Your task to perform on an android device: Open the calendar and show me this week's events? Image 0: 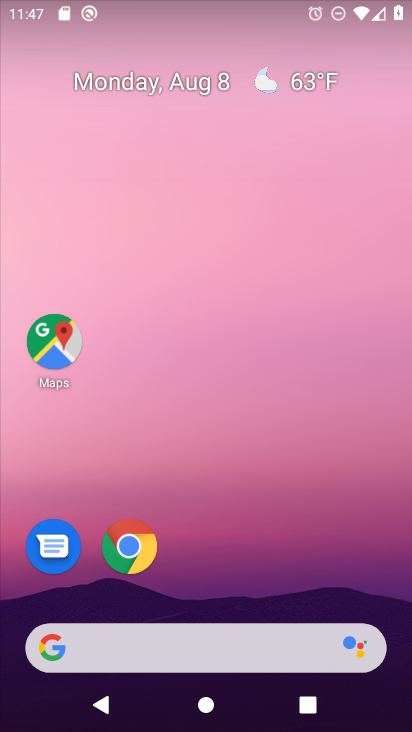
Step 0: press home button
Your task to perform on an android device: Open the calendar and show me this week's events? Image 1: 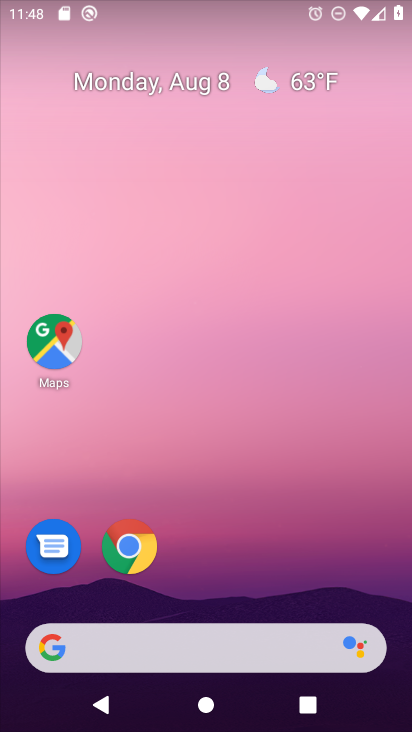
Step 1: drag from (216, 601) to (217, 95)
Your task to perform on an android device: Open the calendar and show me this week's events? Image 2: 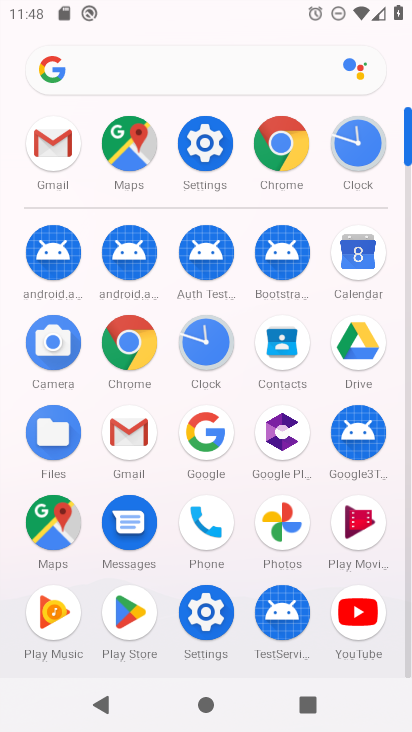
Step 2: click (358, 246)
Your task to perform on an android device: Open the calendar and show me this week's events? Image 3: 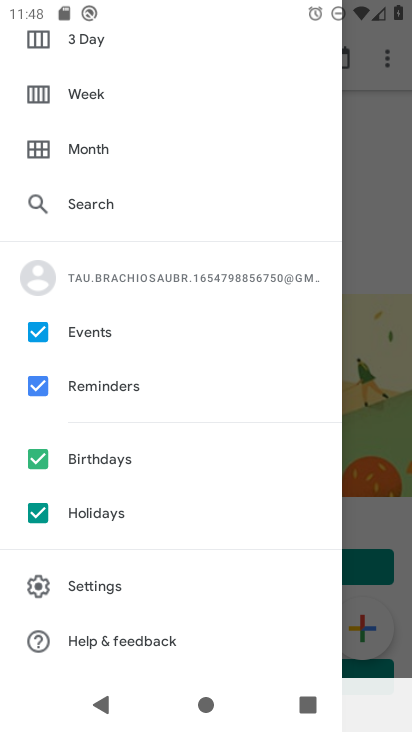
Step 3: click (36, 508)
Your task to perform on an android device: Open the calendar and show me this week's events? Image 4: 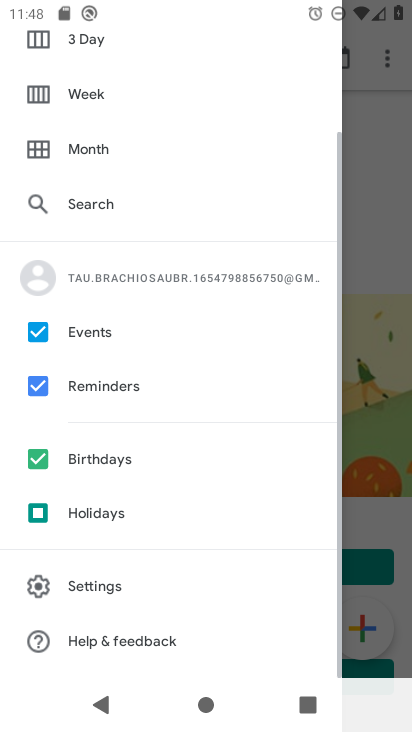
Step 4: click (38, 447)
Your task to perform on an android device: Open the calendar and show me this week's events? Image 5: 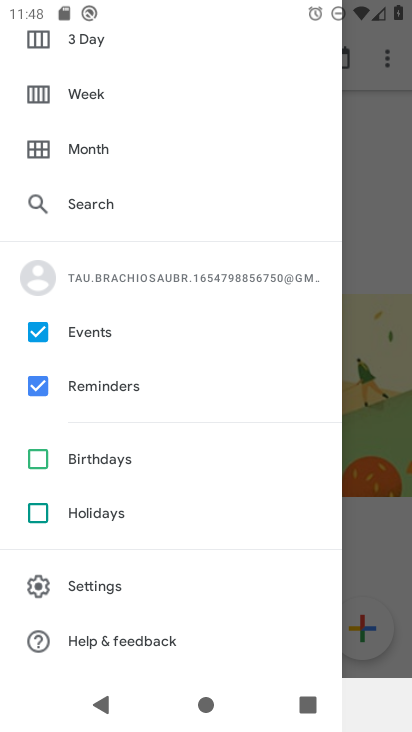
Step 5: click (37, 385)
Your task to perform on an android device: Open the calendar and show me this week's events? Image 6: 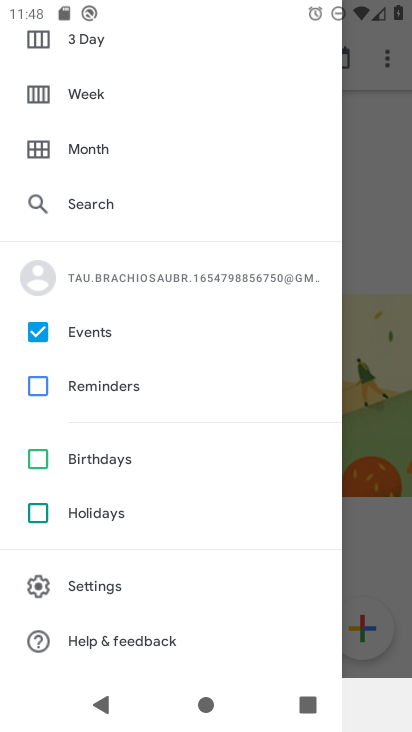
Step 6: click (74, 98)
Your task to perform on an android device: Open the calendar and show me this week's events? Image 7: 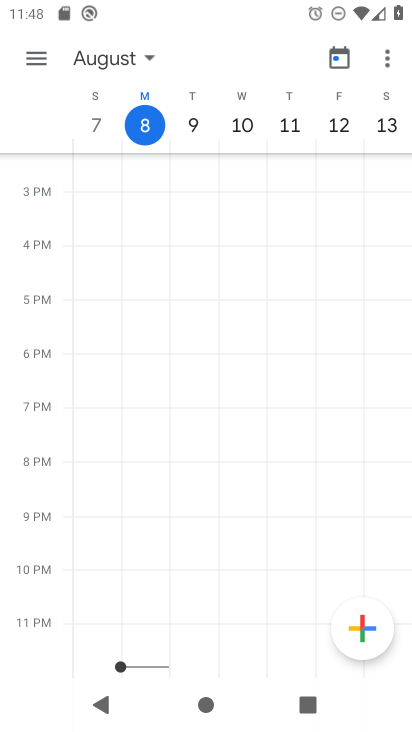
Step 7: click (92, 123)
Your task to perform on an android device: Open the calendar and show me this week's events? Image 8: 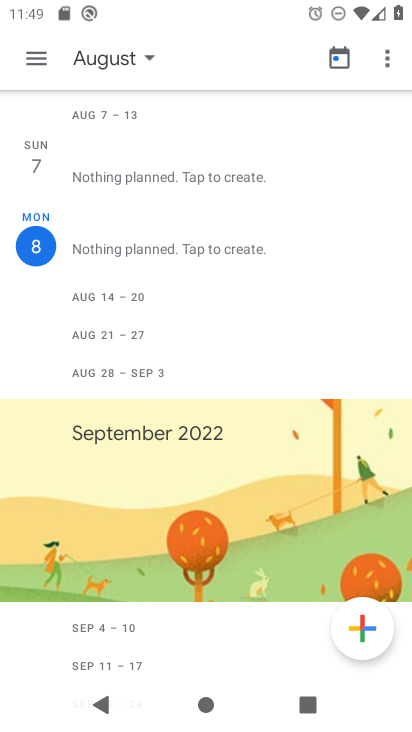
Step 8: task complete